Your task to perform on an android device: turn notification dots off Image 0: 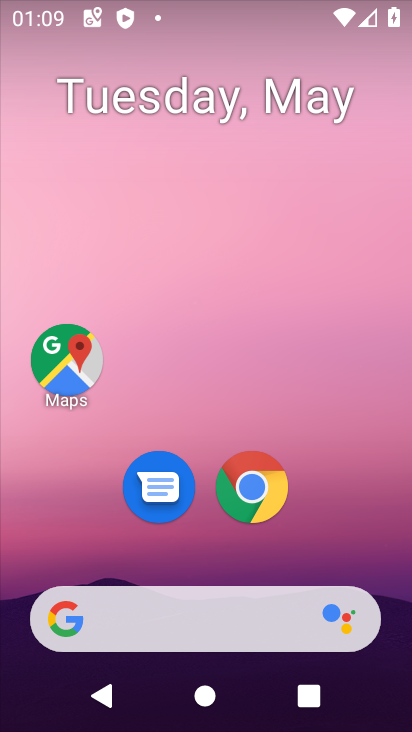
Step 0: drag from (193, 523) to (266, 29)
Your task to perform on an android device: turn notification dots off Image 1: 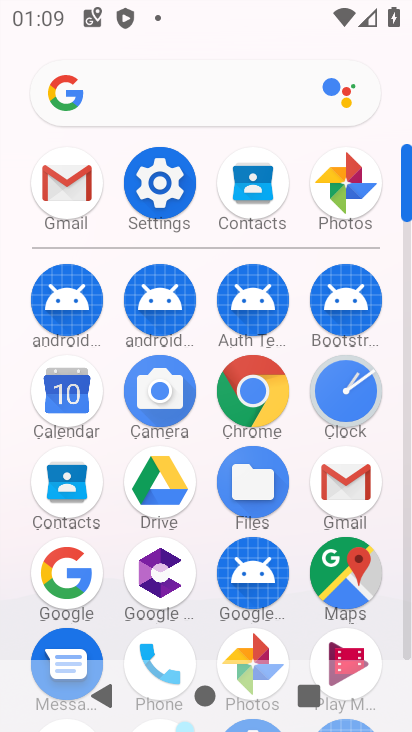
Step 1: click (158, 167)
Your task to perform on an android device: turn notification dots off Image 2: 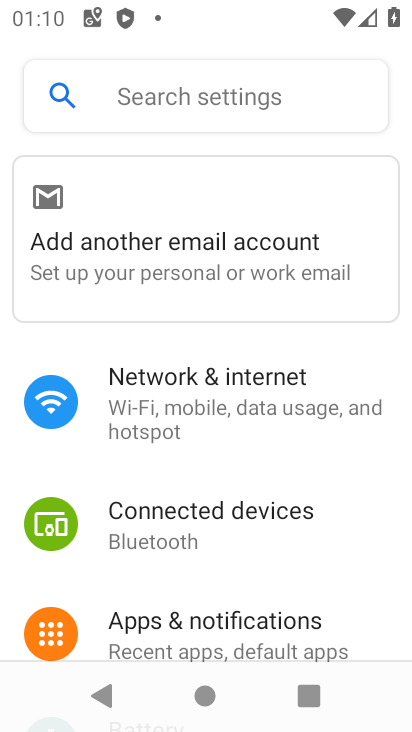
Step 2: drag from (220, 505) to (256, 176)
Your task to perform on an android device: turn notification dots off Image 3: 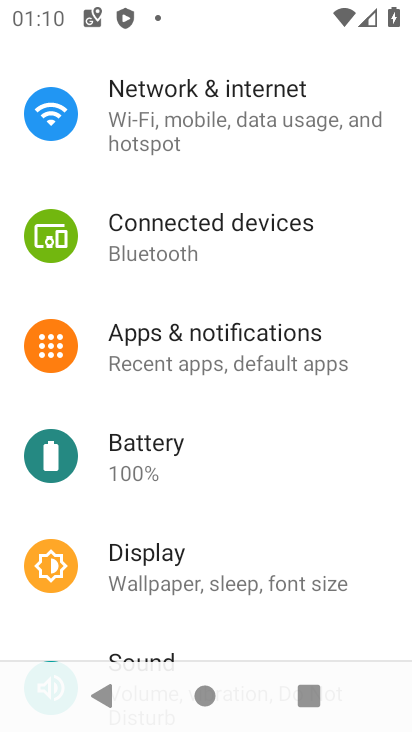
Step 3: drag from (245, 501) to (315, 175)
Your task to perform on an android device: turn notification dots off Image 4: 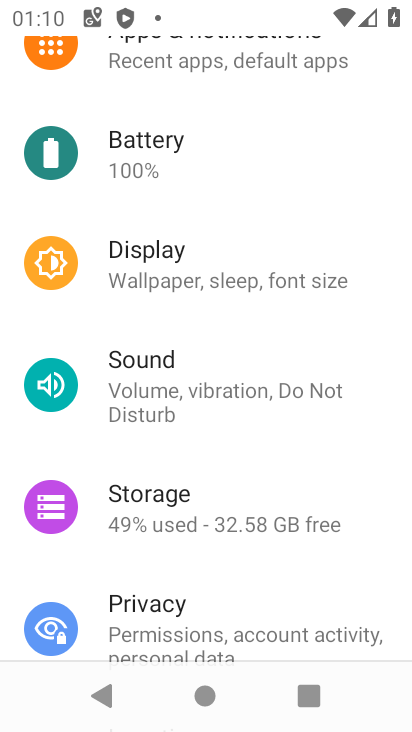
Step 4: drag from (272, 597) to (322, 227)
Your task to perform on an android device: turn notification dots off Image 5: 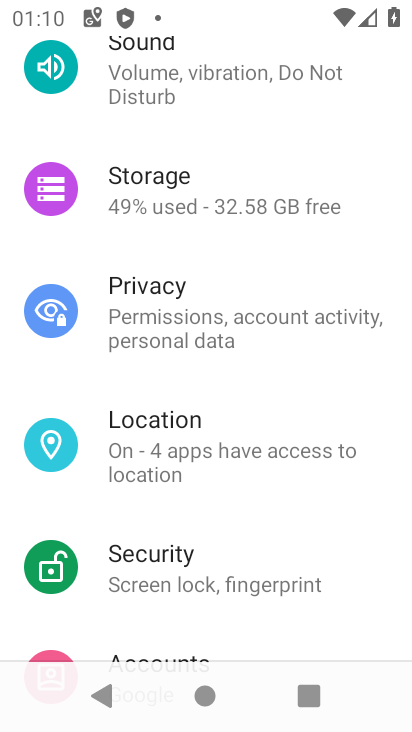
Step 5: drag from (282, 519) to (364, 168)
Your task to perform on an android device: turn notification dots off Image 6: 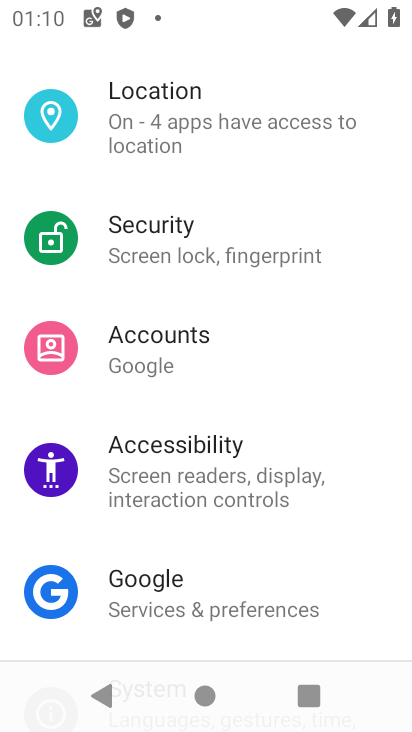
Step 6: drag from (214, 126) to (160, 574)
Your task to perform on an android device: turn notification dots off Image 7: 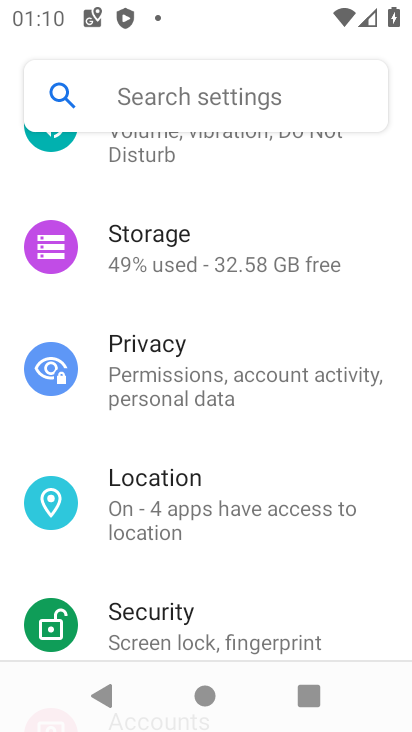
Step 7: drag from (175, 601) to (236, 285)
Your task to perform on an android device: turn notification dots off Image 8: 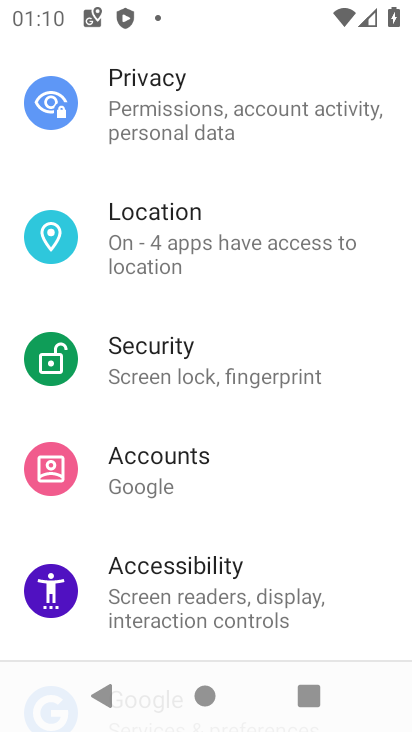
Step 8: drag from (210, 263) to (201, 567)
Your task to perform on an android device: turn notification dots off Image 9: 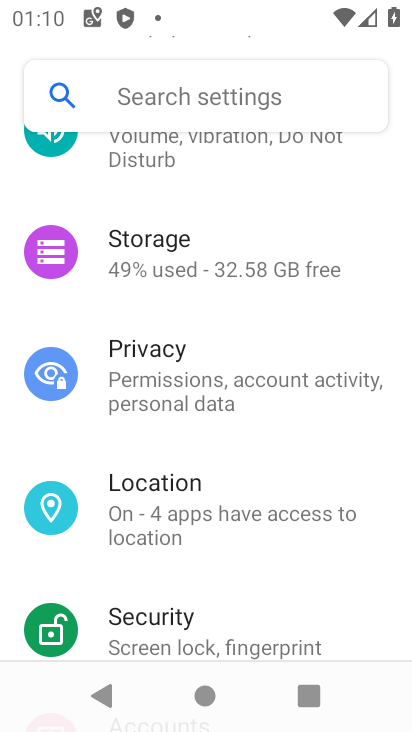
Step 9: click (198, 539)
Your task to perform on an android device: turn notification dots off Image 10: 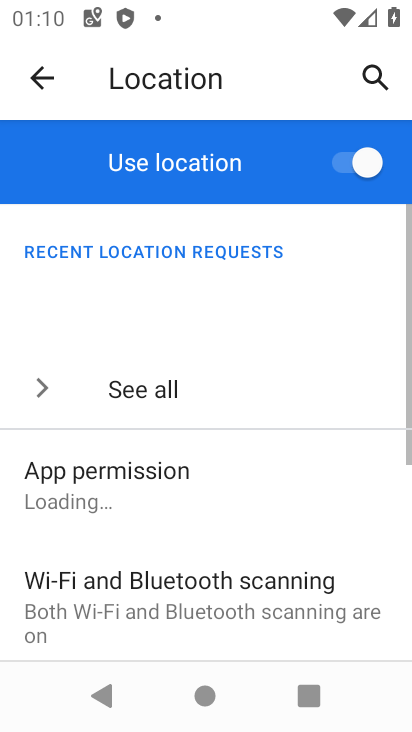
Step 10: drag from (215, 266) to (204, 360)
Your task to perform on an android device: turn notification dots off Image 11: 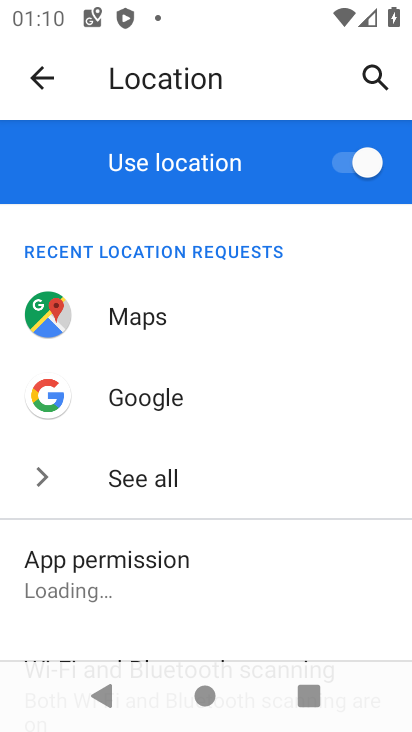
Step 11: click (40, 69)
Your task to perform on an android device: turn notification dots off Image 12: 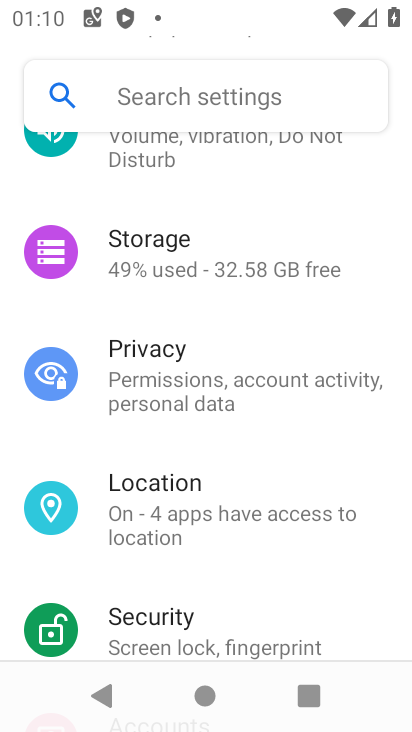
Step 12: click (185, 89)
Your task to perform on an android device: turn notification dots off Image 13: 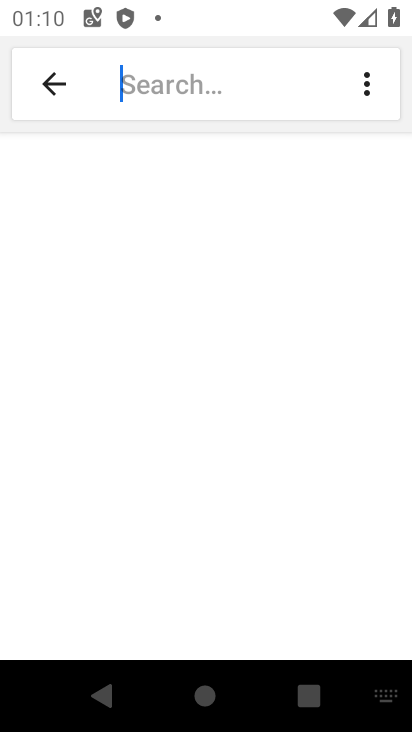
Step 13: type "sounds"
Your task to perform on an android device: turn notification dots off Image 14: 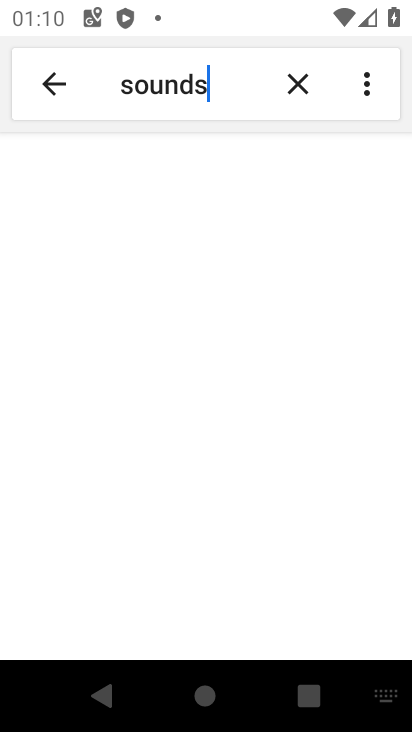
Step 14: type ""
Your task to perform on an android device: turn notification dots off Image 15: 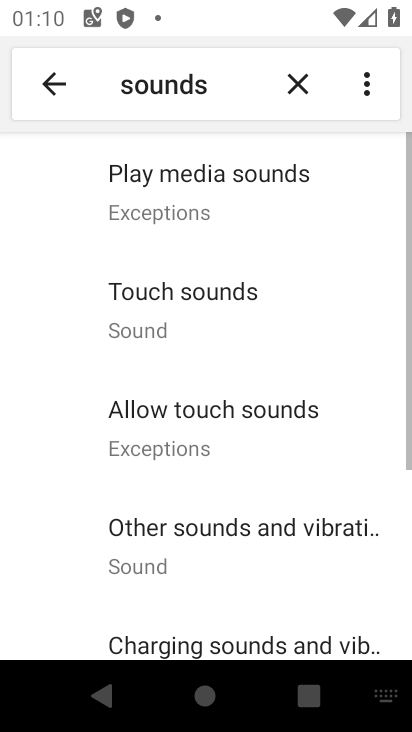
Step 15: click (197, 76)
Your task to perform on an android device: turn notification dots off Image 16: 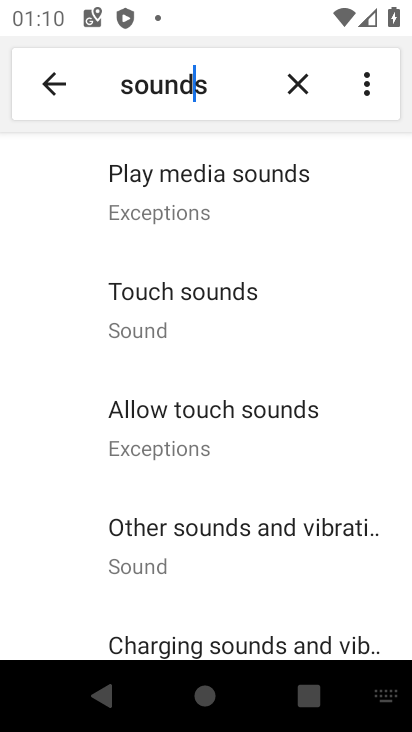
Step 16: press back button
Your task to perform on an android device: turn notification dots off Image 17: 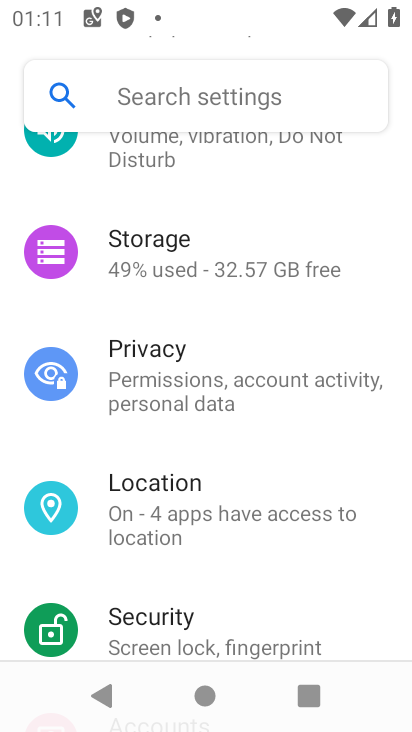
Step 17: drag from (112, 477) to (224, 169)
Your task to perform on an android device: turn notification dots off Image 18: 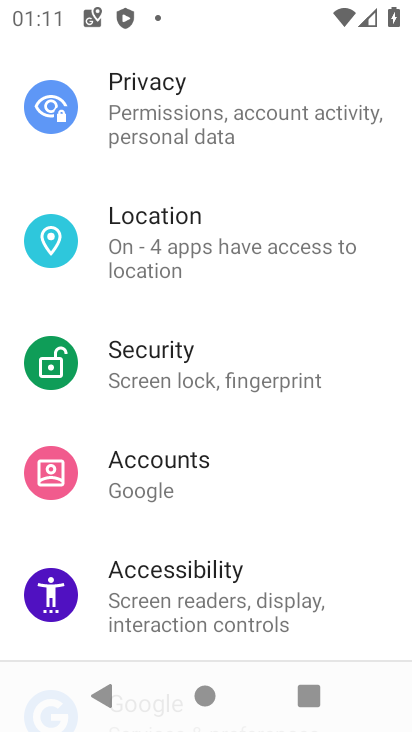
Step 18: drag from (189, 576) to (286, 142)
Your task to perform on an android device: turn notification dots off Image 19: 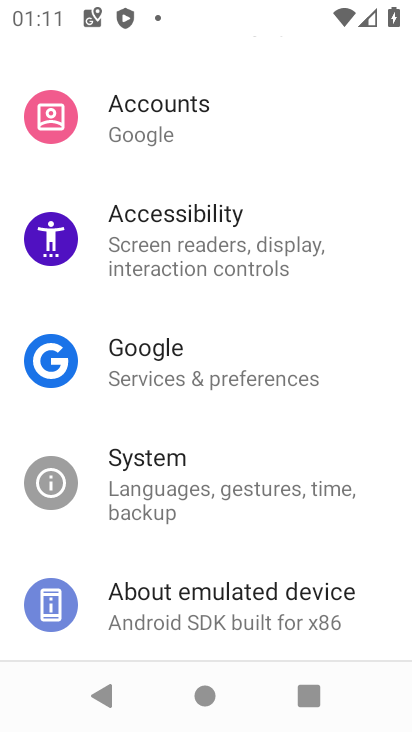
Step 19: drag from (209, 528) to (279, 139)
Your task to perform on an android device: turn notification dots off Image 20: 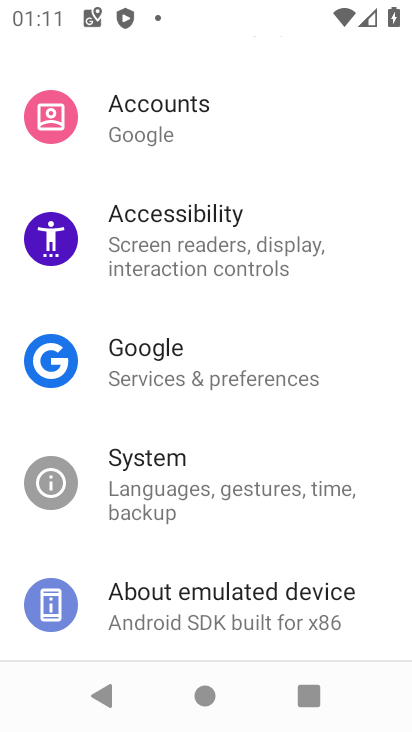
Step 20: drag from (249, 255) to (194, 664)
Your task to perform on an android device: turn notification dots off Image 21: 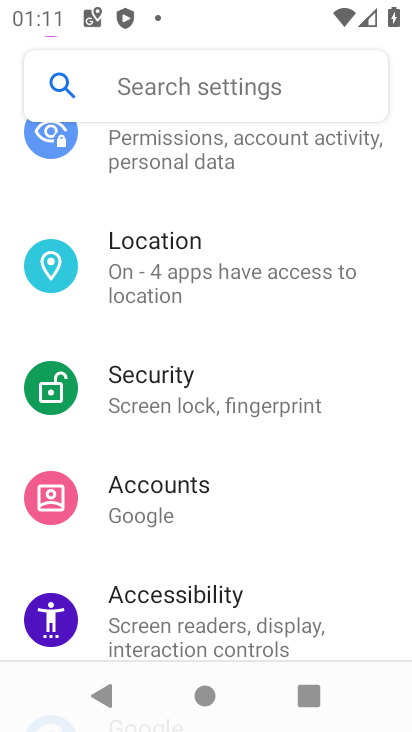
Step 21: drag from (203, 389) to (172, 667)
Your task to perform on an android device: turn notification dots off Image 22: 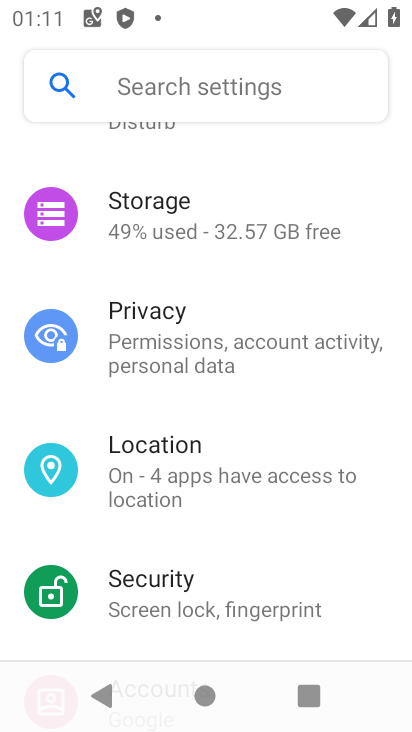
Step 22: drag from (175, 260) to (134, 583)
Your task to perform on an android device: turn notification dots off Image 23: 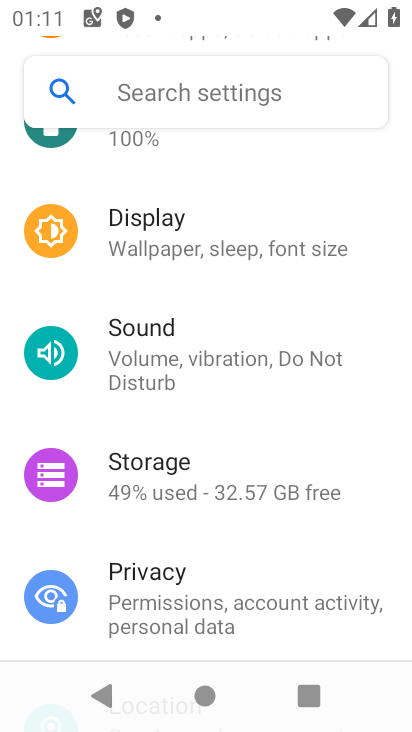
Step 23: click (233, 351)
Your task to perform on an android device: turn notification dots off Image 24: 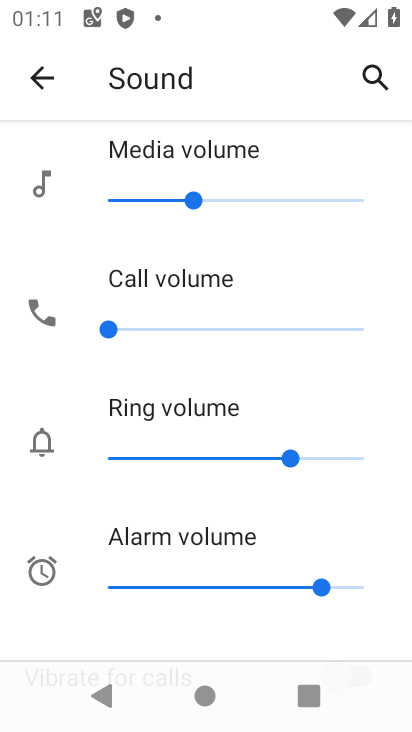
Step 24: drag from (207, 554) to (265, 171)
Your task to perform on an android device: turn notification dots off Image 25: 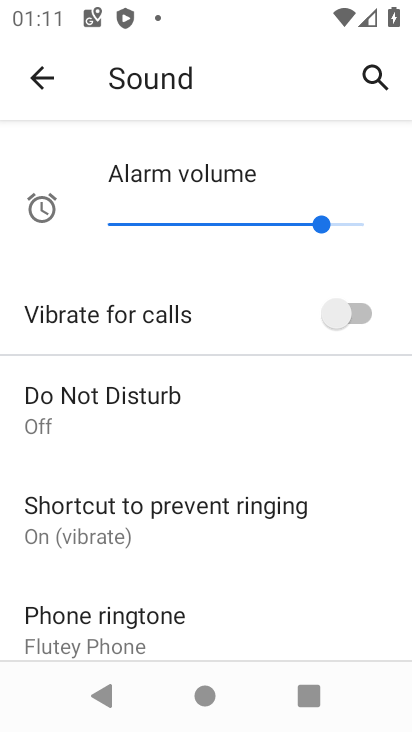
Step 25: drag from (265, 515) to (326, 235)
Your task to perform on an android device: turn notification dots off Image 26: 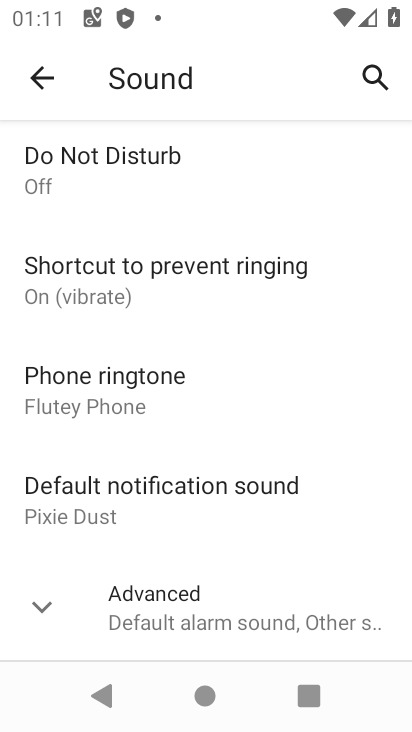
Step 26: drag from (209, 481) to (296, 220)
Your task to perform on an android device: turn notification dots off Image 27: 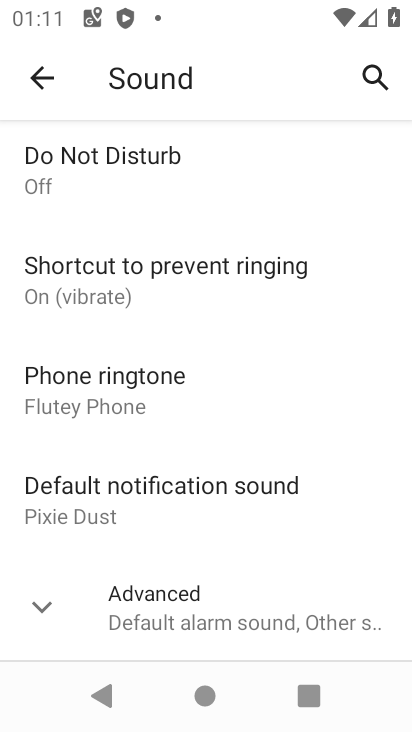
Step 27: click (251, 487)
Your task to perform on an android device: turn notification dots off Image 28: 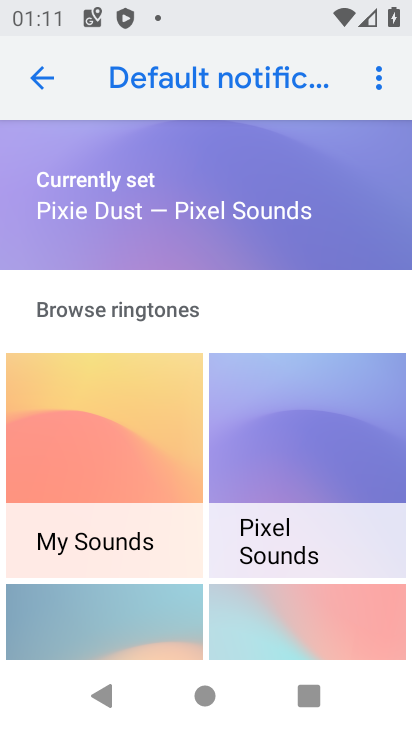
Step 28: click (50, 70)
Your task to perform on an android device: turn notification dots off Image 29: 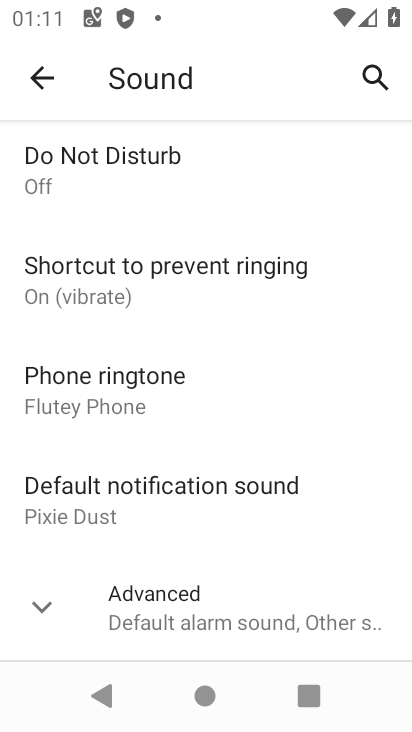
Step 29: task complete